Your task to perform on an android device: Open Google Chrome and open the bookmarks view Image 0: 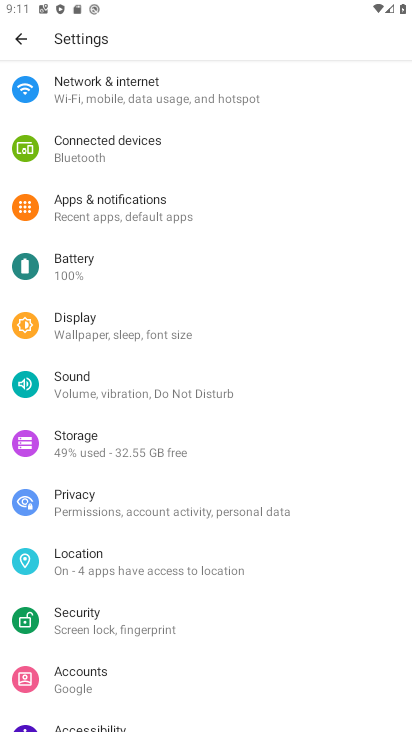
Step 0: press home button
Your task to perform on an android device: Open Google Chrome and open the bookmarks view Image 1: 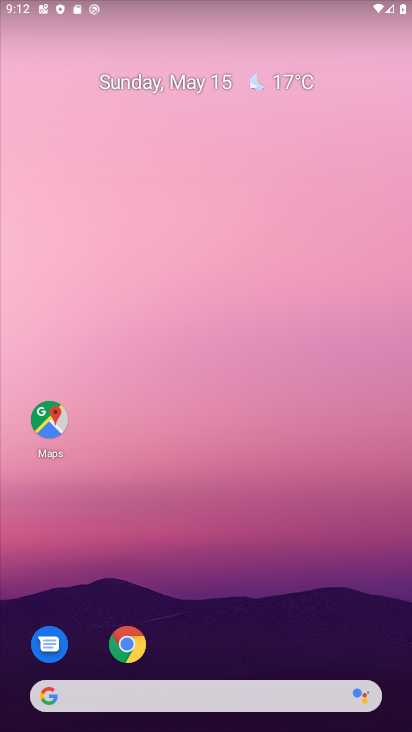
Step 1: drag from (250, 701) to (402, 109)
Your task to perform on an android device: Open Google Chrome and open the bookmarks view Image 2: 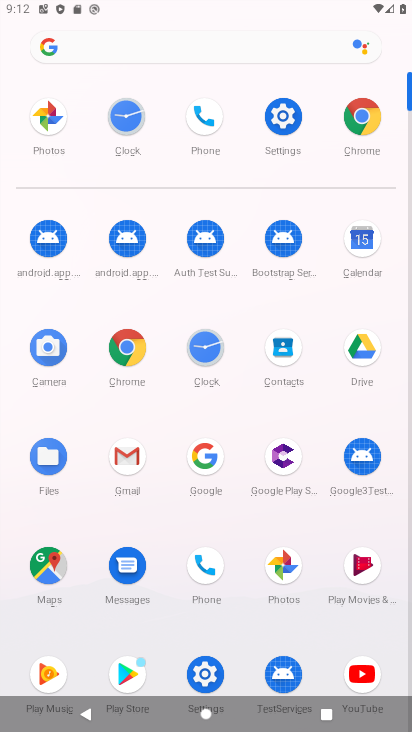
Step 2: click (379, 106)
Your task to perform on an android device: Open Google Chrome and open the bookmarks view Image 3: 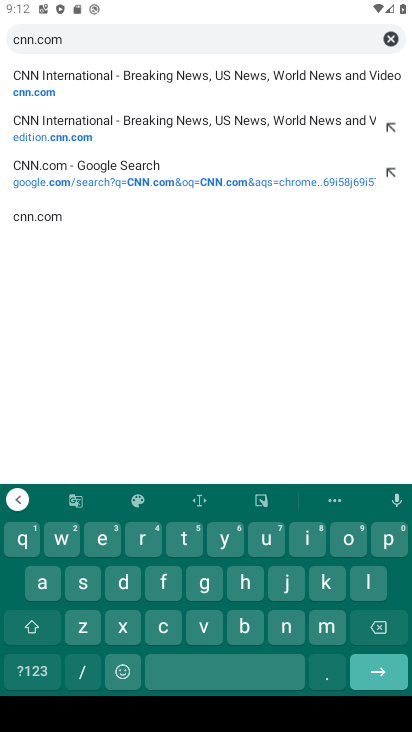
Step 3: press back button
Your task to perform on an android device: Open Google Chrome and open the bookmarks view Image 4: 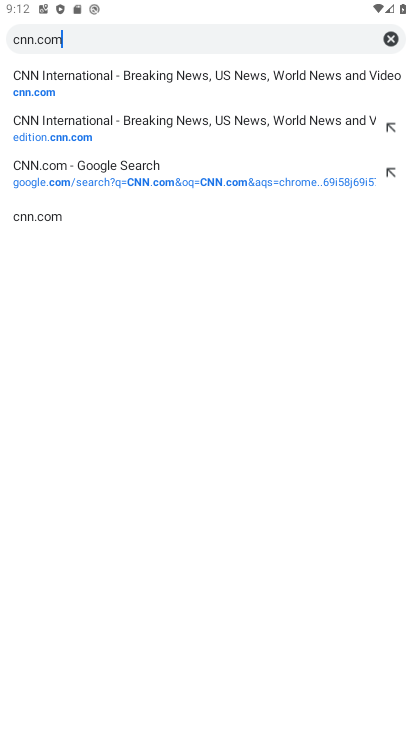
Step 4: press back button
Your task to perform on an android device: Open Google Chrome and open the bookmarks view Image 5: 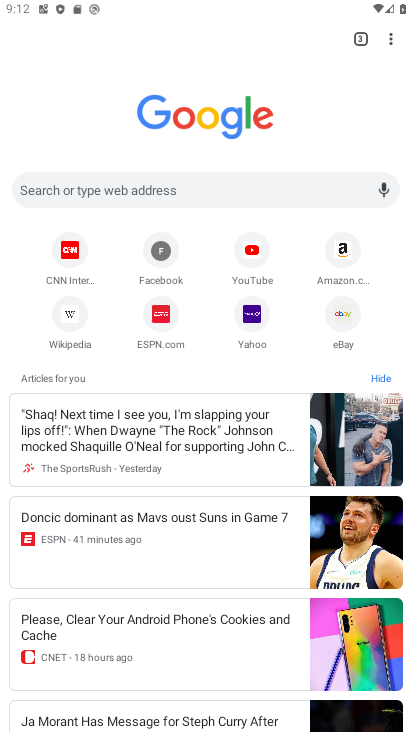
Step 5: click (389, 59)
Your task to perform on an android device: Open Google Chrome and open the bookmarks view Image 6: 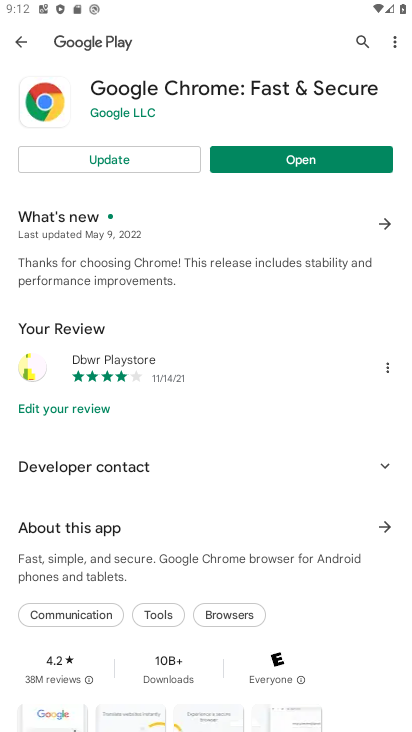
Step 6: click (328, 161)
Your task to perform on an android device: Open Google Chrome and open the bookmarks view Image 7: 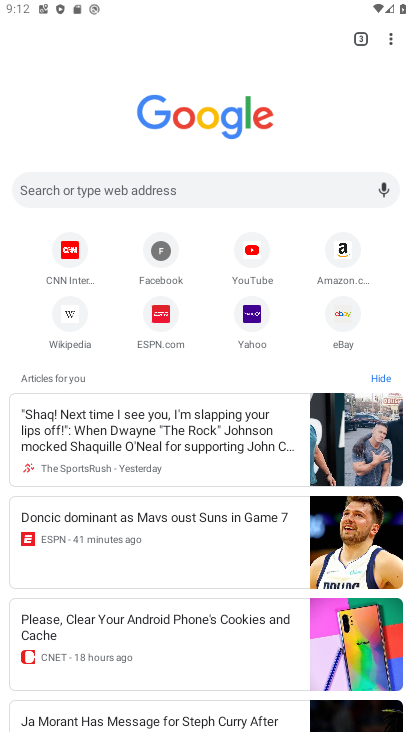
Step 7: click (385, 57)
Your task to perform on an android device: Open Google Chrome and open the bookmarks view Image 8: 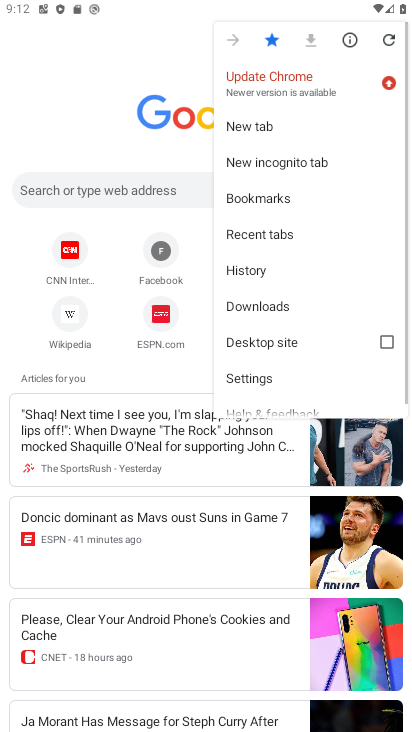
Step 8: click (269, 201)
Your task to perform on an android device: Open Google Chrome and open the bookmarks view Image 9: 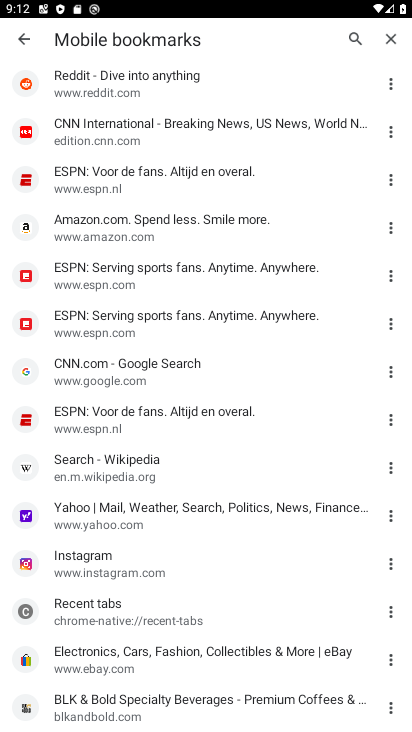
Step 9: task complete